Your task to perform on an android device: check android version Image 0: 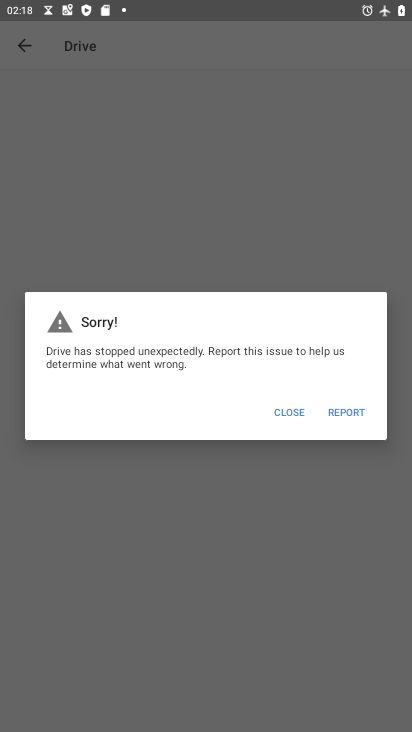
Step 0: press home button
Your task to perform on an android device: check android version Image 1: 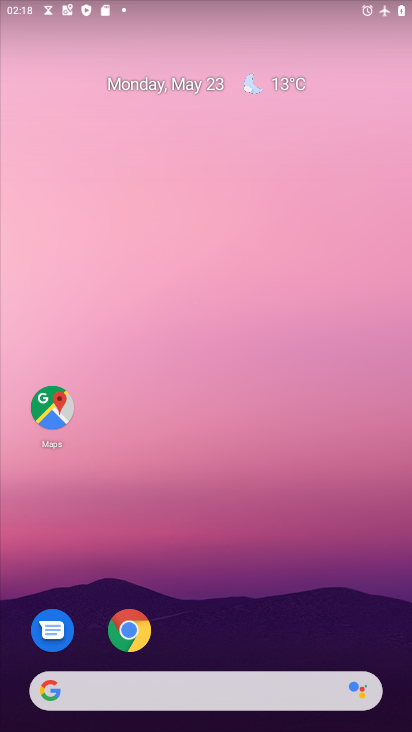
Step 1: drag from (282, 576) to (121, 6)
Your task to perform on an android device: check android version Image 2: 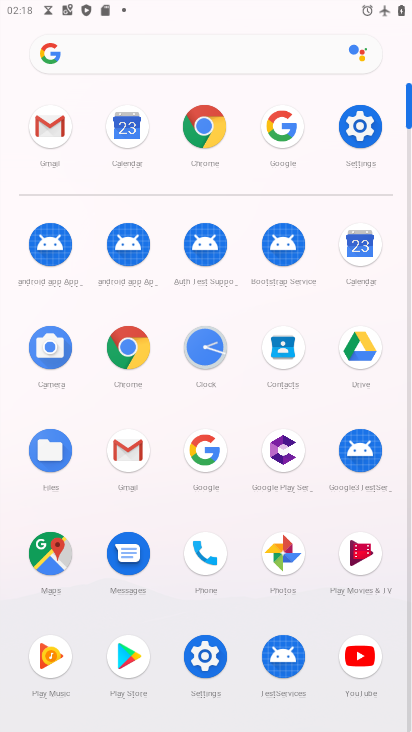
Step 2: click (345, 136)
Your task to perform on an android device: check android version Image 3: 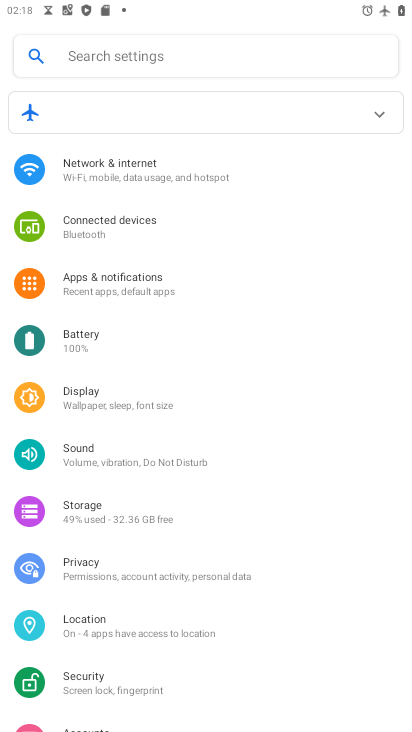
Step 3: drag from (262, 637) to (203, 31)
Your task to perform on an android device: check android version Image 4: 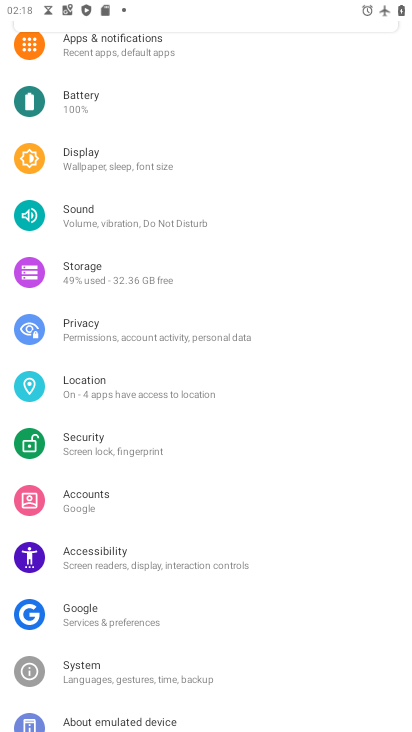
Step 4: drag from (202, 632) to (172, 73)
Your task to perform on an android device: check android version Image 5: 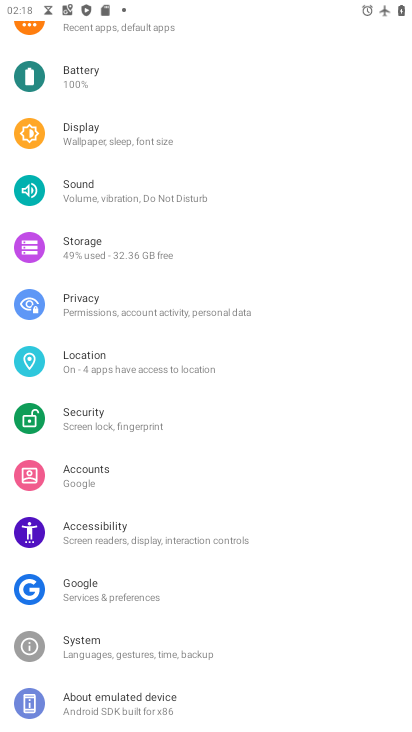
Step 5: click (199, 706)
Your task to perform on an android device: check android version Image 6: 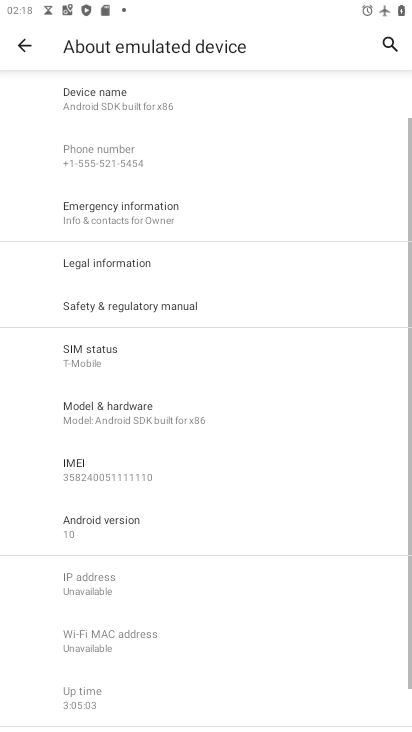
Step 6: click (189, 523)
Your task to perform on an android device: check android version Image 7: 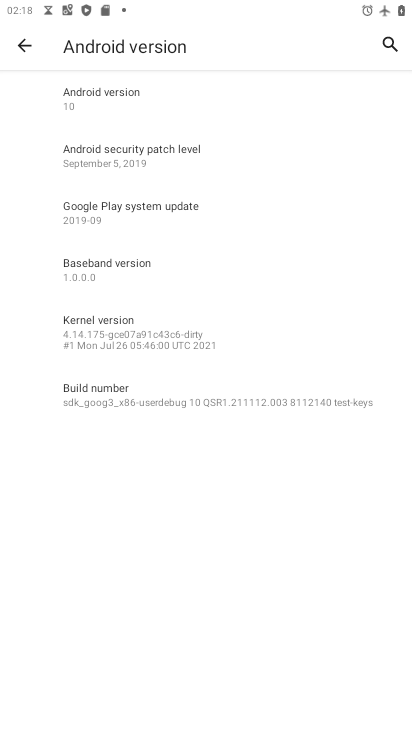
Step 7: task complete